Your task to perform on an android device: Go to ESPN.com Image 0: 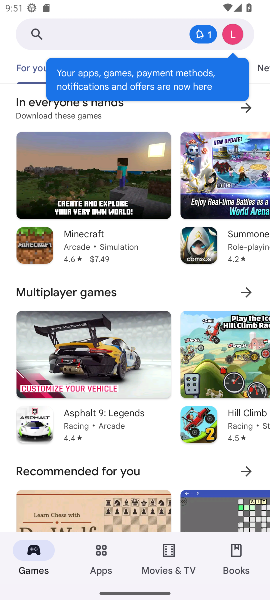
Step 0: press home button
Your task to perform on an android device: Go to ESPN.com Image 1: 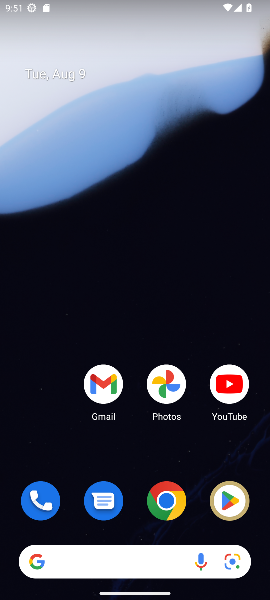
Step 1: drag from (144, 530) to (170, 501)
Your task to perform on an android device: Go to ESPN.com Image 2: 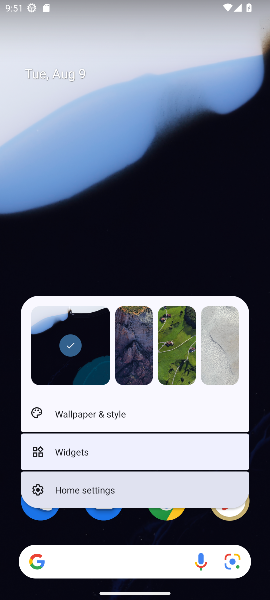
Step 2: click (170, 501)
Your task to perform on an android device: Go to ESPN.com Image 3: 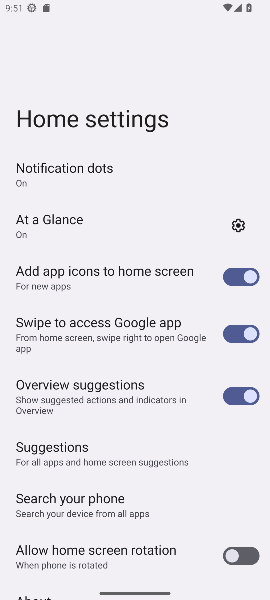
Step 3: press back button
Your task to perform on an android device: Go to ESPN.com Image 4: 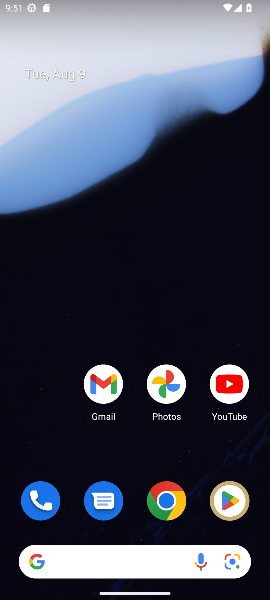
Step 4: click (163, 514)
Your task to perform on an android device: Go to ESPN.com Image 5: 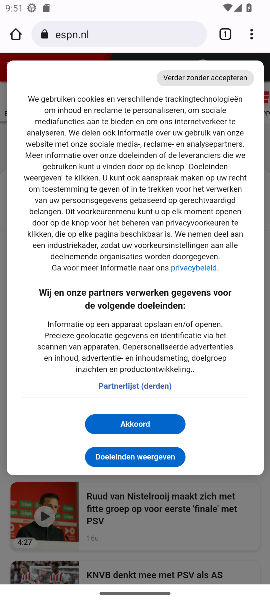
Step 5: click (80, 36)
Your task to perform on an android device: Go to ESPN.com Image 6: 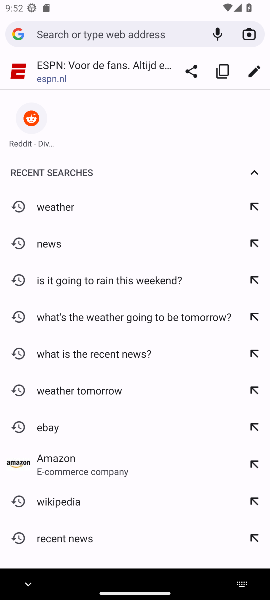
Step 6: click (75, 70)
Your task to perform on an android device: Go to ESPN.com Image 7: 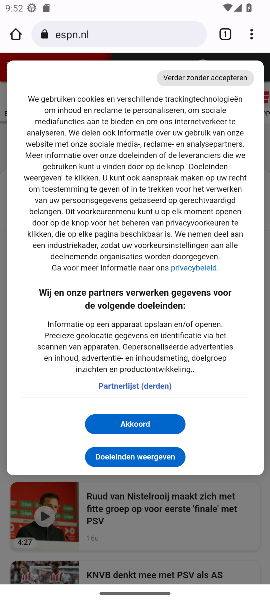
Step 7: task complete